Your task to perform on an android device: Show me popular videos on Youtube Image 0: 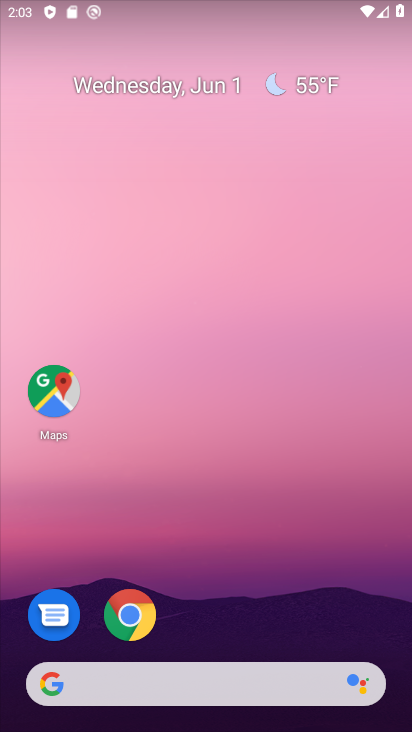
Step 0: drag from (179, 638) to (259, 161)
Your task to perform on an android device: Show me popular videos on Youtube Image 1: 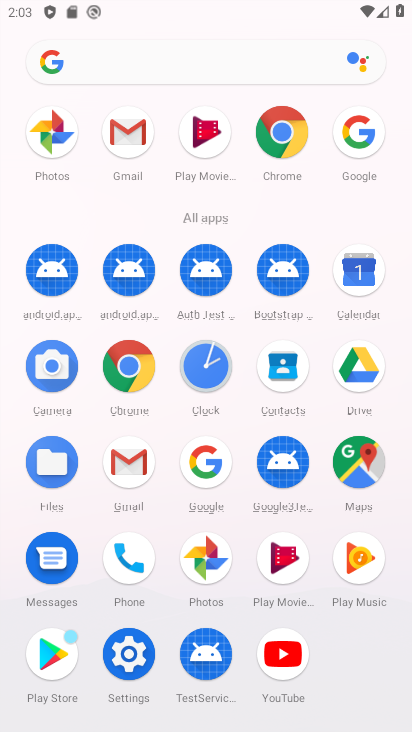
Step 1: click (276, 660)
Your task to perform on an android device: Show me popular videos on Youtube Image 2: 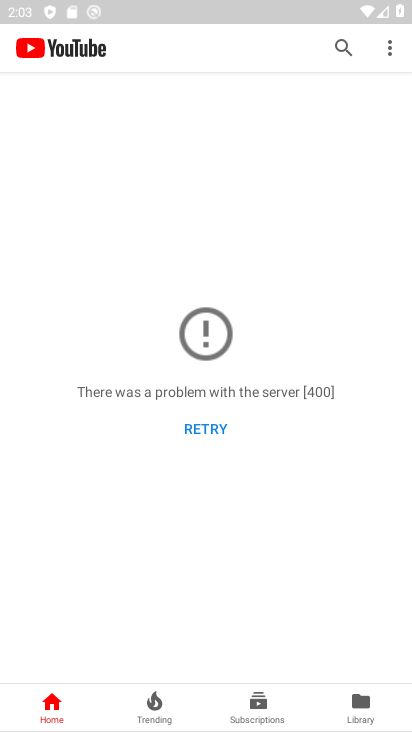
Step 2: click (383, 710)
Your task to perform on an android device: Show me popular videos on Youtube Image 3: 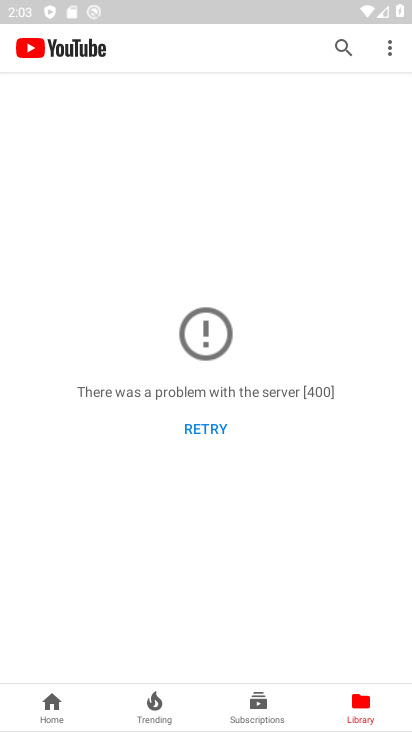
Step 3: task complete